Your task to perform on an android device: Go to eBay Image 0: 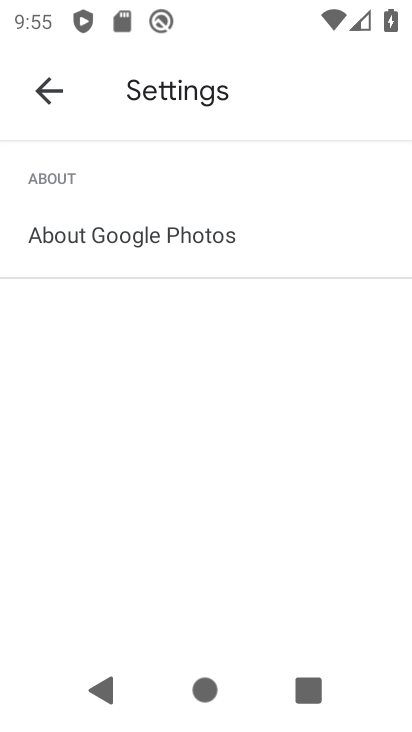
Step 0: press home button
Your task to perform on an android device: Go to eBay Image 1: 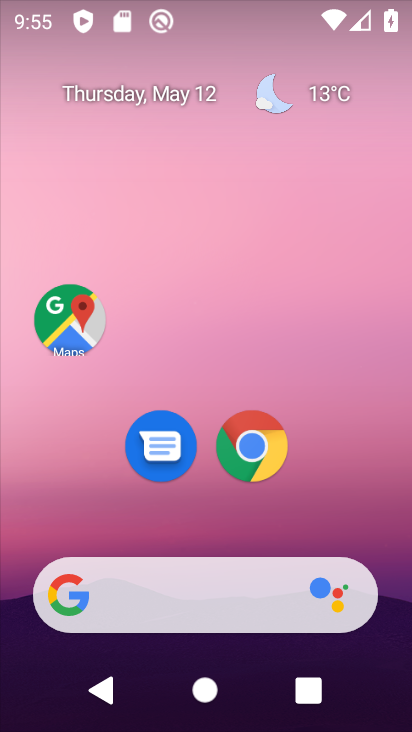
Step 1: click (188, 585)
Your task to perform on an android device: Go to eBay Image 2: 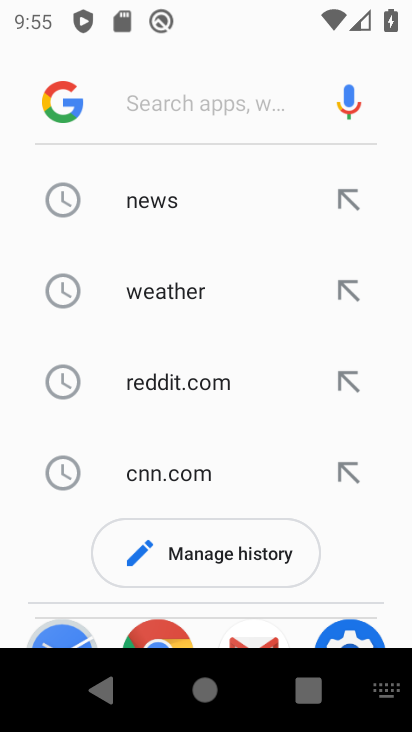
Step 2: type "ebay"
Your task to perform on an android device: Go to eBay Image 3: 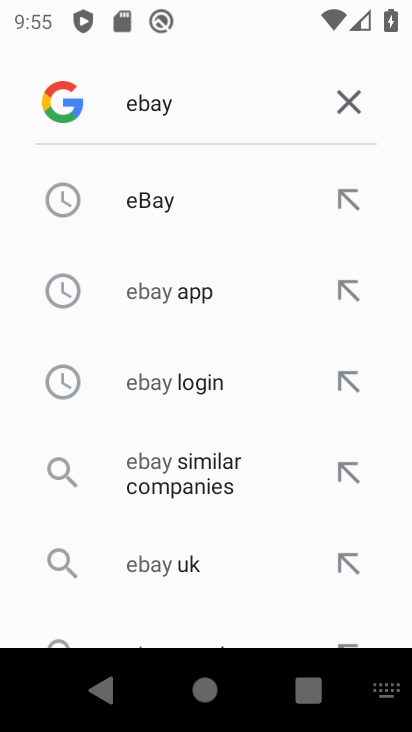
Step 3: click (158, 211)
Your task to perform on an android device: Go to eBay Image 4: 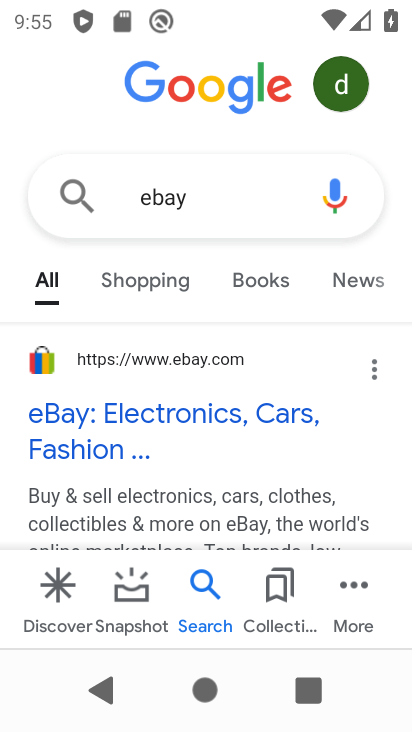
Step 4: click (211, 413)
Your task to perform on an android device: Go to eBay Image 5: 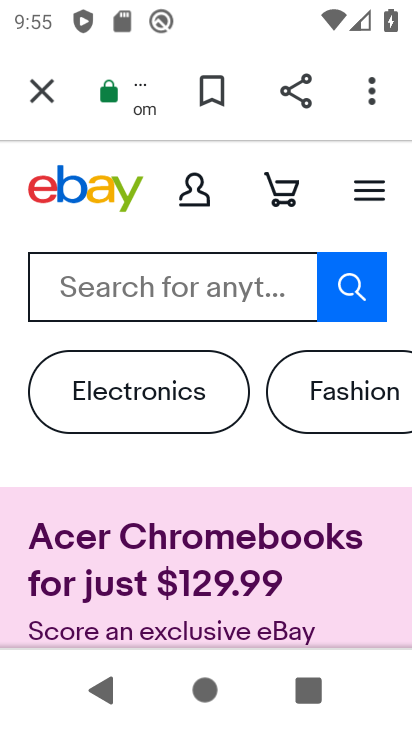
Step 5: task complete